Your task to perform on an android device: Do I have any events this weekend? Image 0: 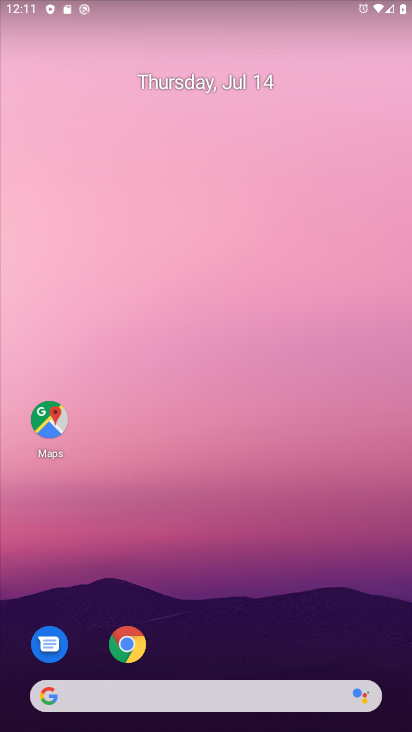
Step 0: drag from (186, 672) to (178, 176)
Your task to perform on an android device: Do I have any events this weekend? Image 1: 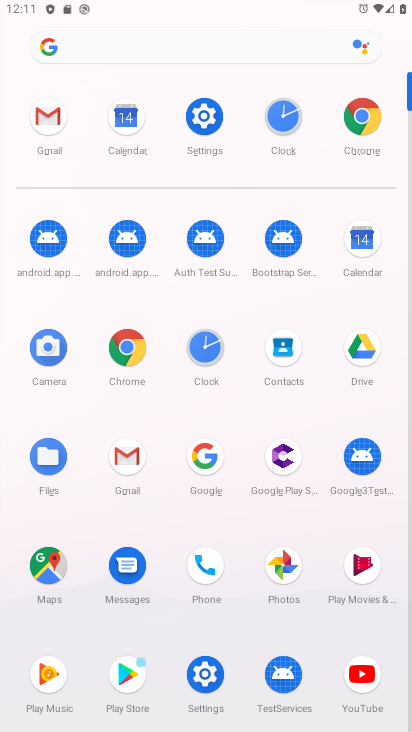
Step 1: click (361, 239)
Your task to perform on an android device: Do I have any events this weekend? Image 2: 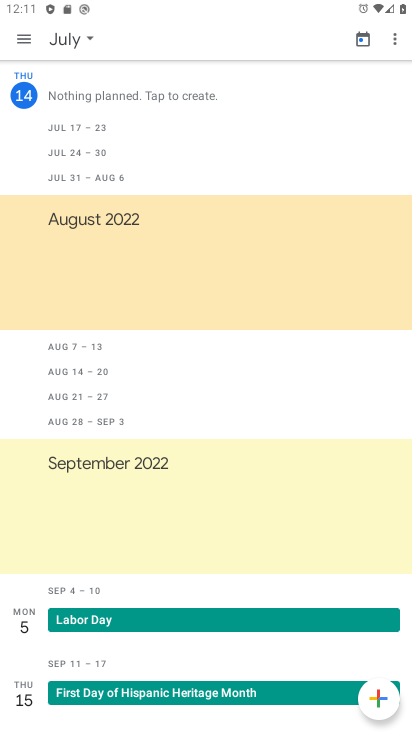
Step 2: click (19, 44)
Your task to perform on an android device: Do I have any events this weekend? Image 3: 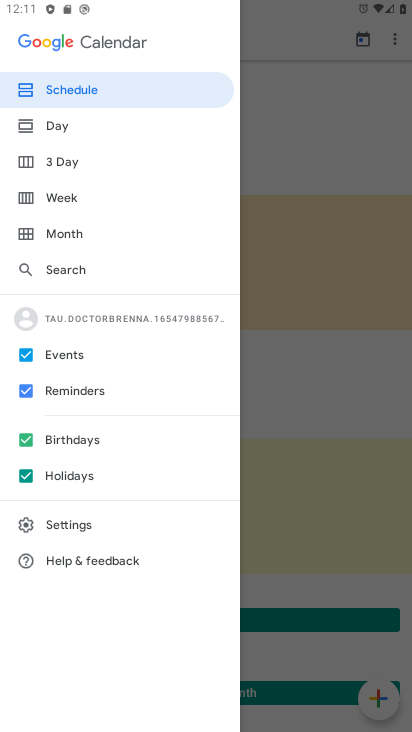
Step 3: click (67, 198)
Your task to perform on an android device: Do I have any events this weekend? Image 4: 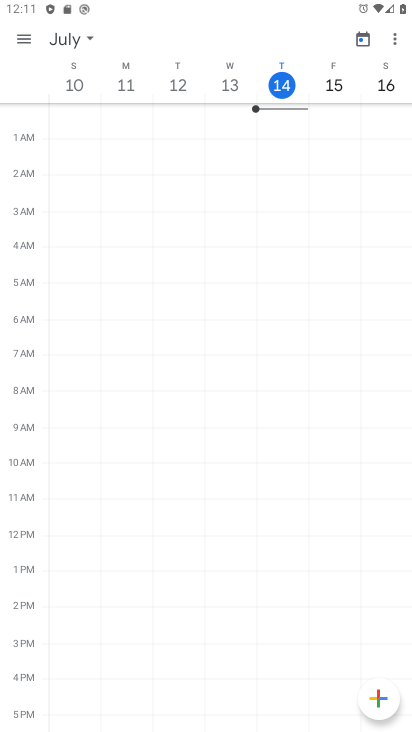
Step 4: drag from (179, 154) to (223, 389)
Your task to perform on an android device: Do I have any events this weekend? Image 5: 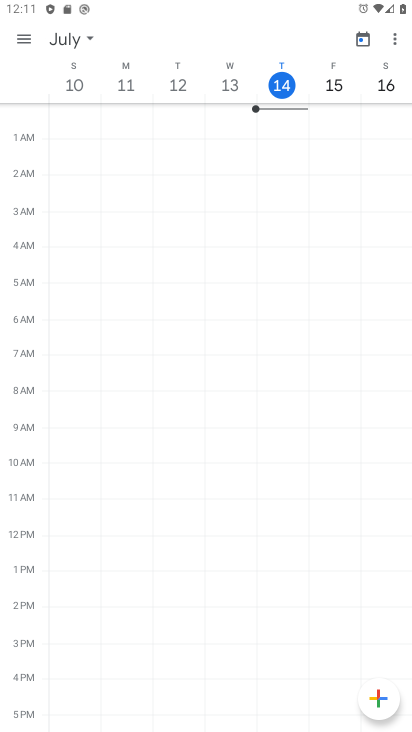
Step 5: click (336, 82)
Your task to perform on an android device: Do I have any events this weekend? Image 6: 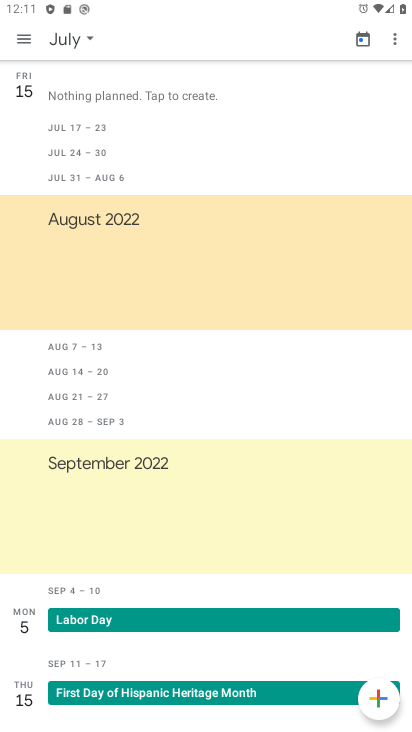
Step 6: click (84, 125)
Your task to perform on an android device: Do I have any events this weekend? Image 7: 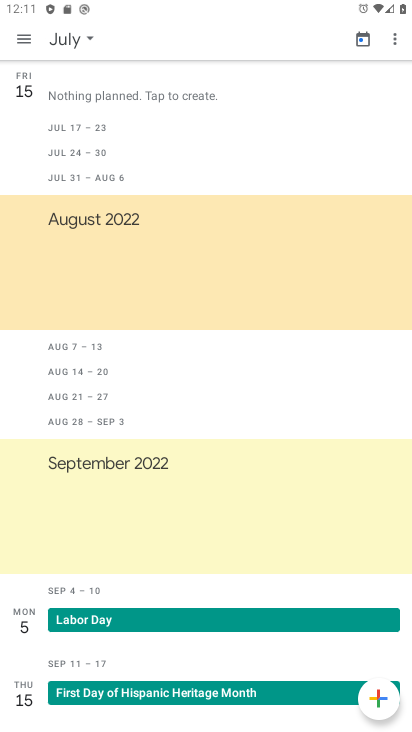
Step 7: task complete